Your task to perform on an android device: How big is the universe? Image 0: 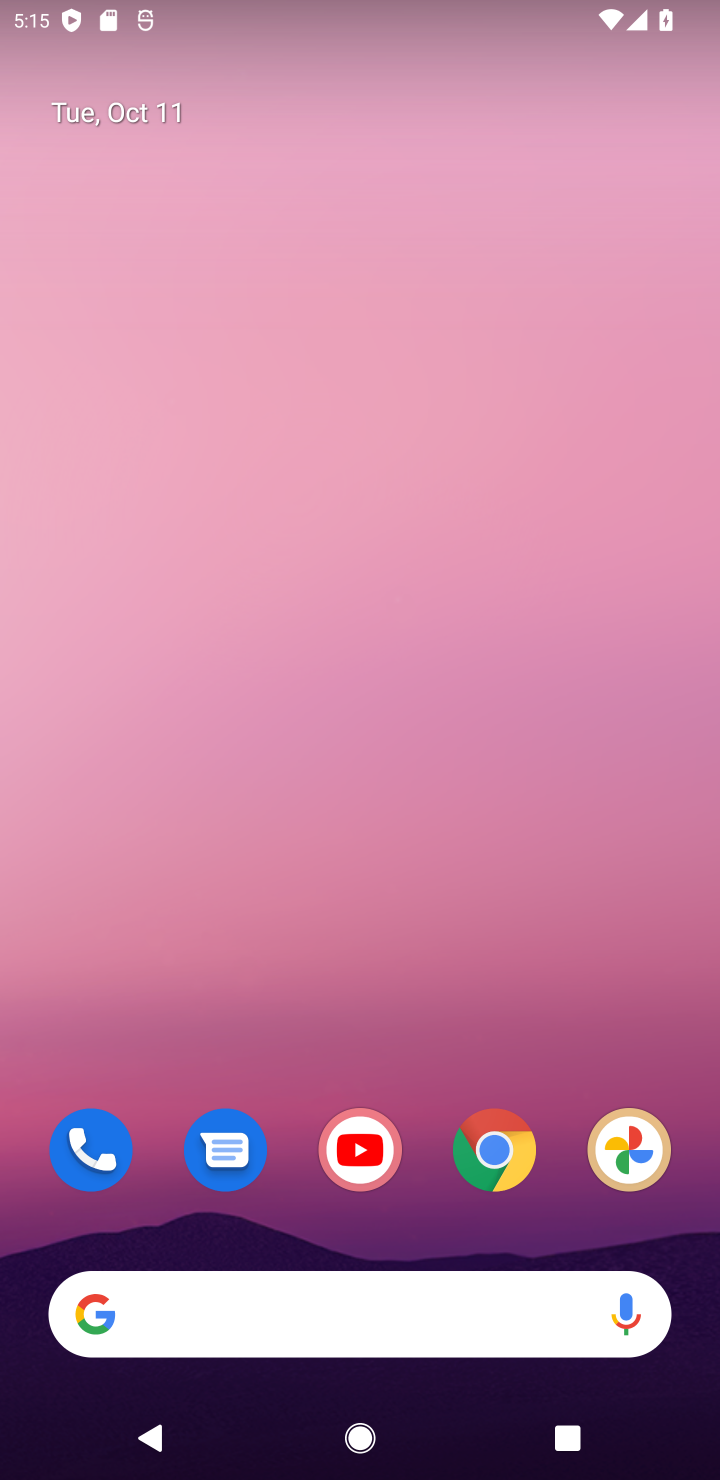
Step 0: click (494, 1167)
Your task to perform on an android device: How big is the universe? Image 1: 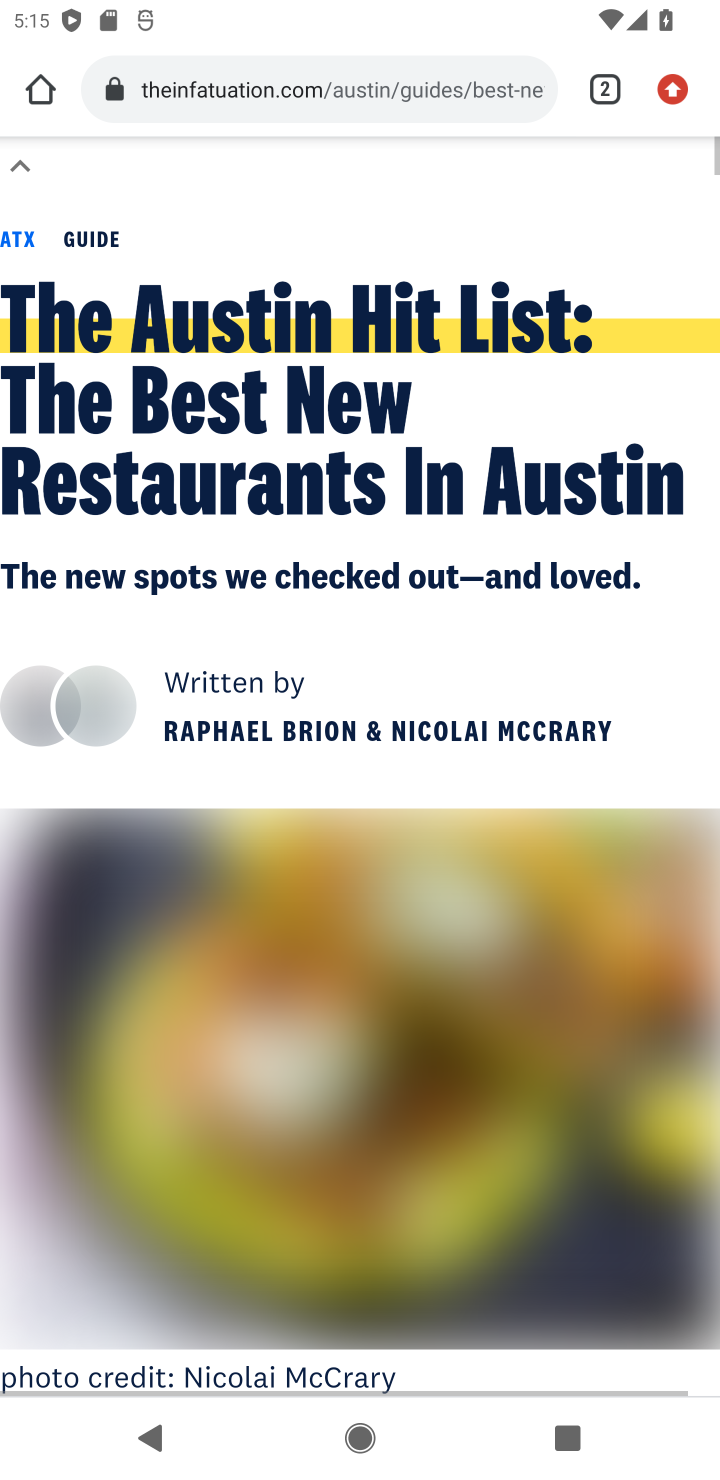
Step 1: click (272, 86)
Your task to perform on an android device: How big is the universe? Image 2: 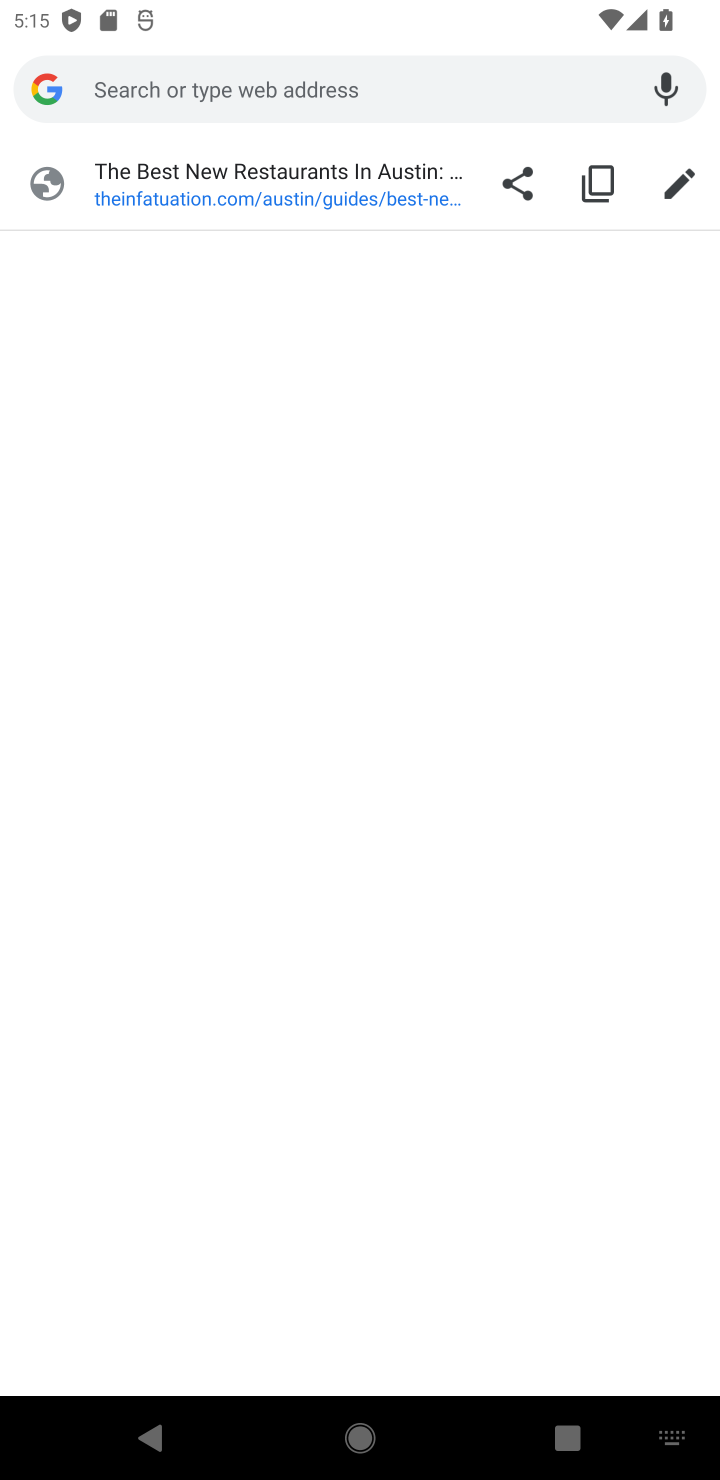
Step 2: type "How big is the universe"
Your task to perform on an android device: How big is the universe? Image 3: 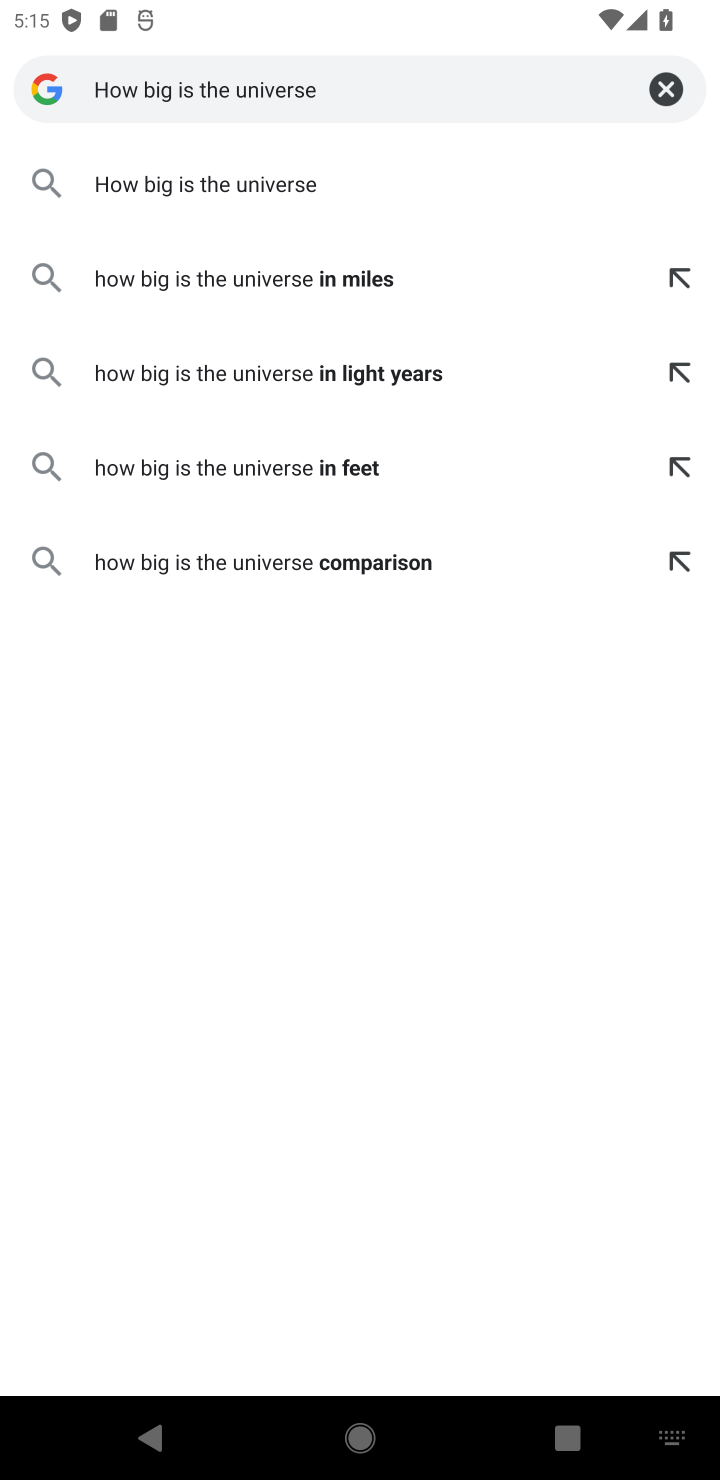
Step 3: click (198, 193)
Your task to perform on an android device: How big is the universe? Image 4: 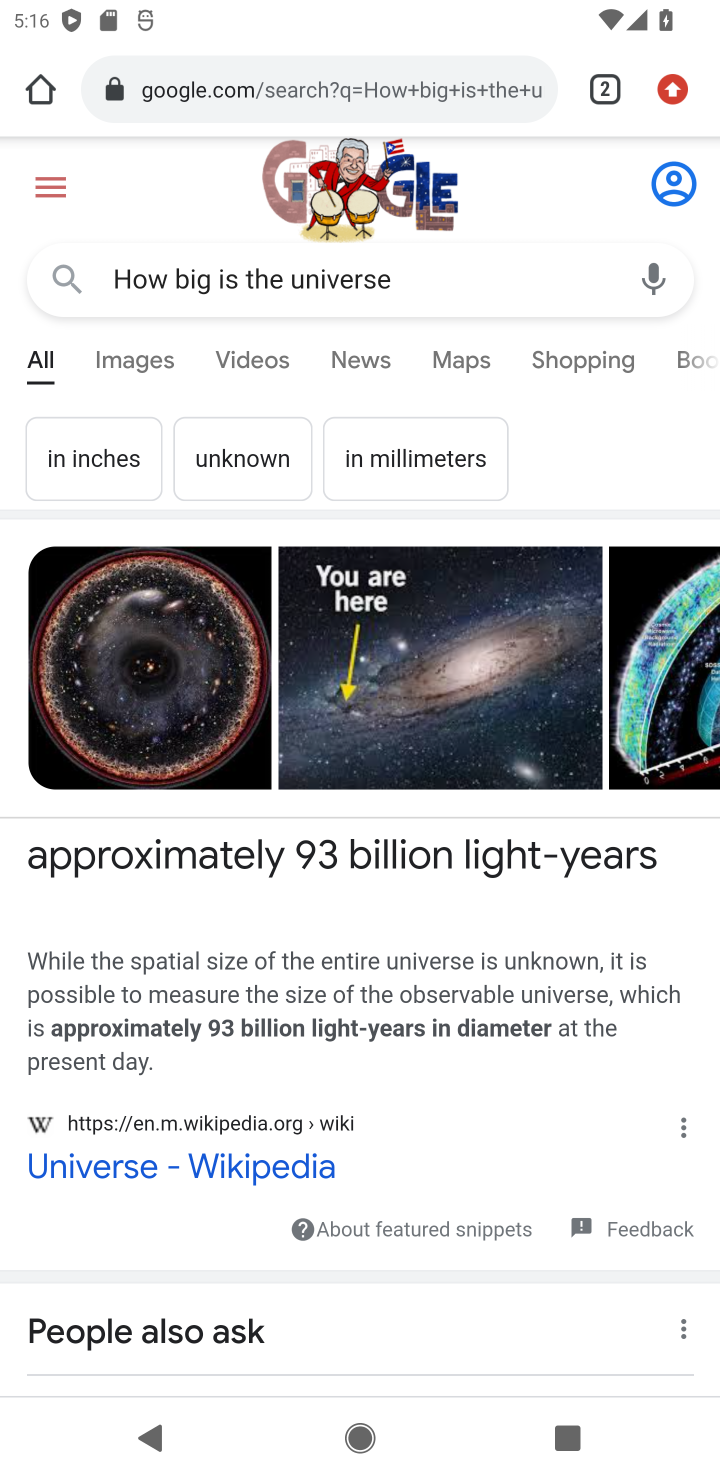
Step 4: task complete